Your task to perform on an android device: turn on the 12-hour format for clock Image 0: 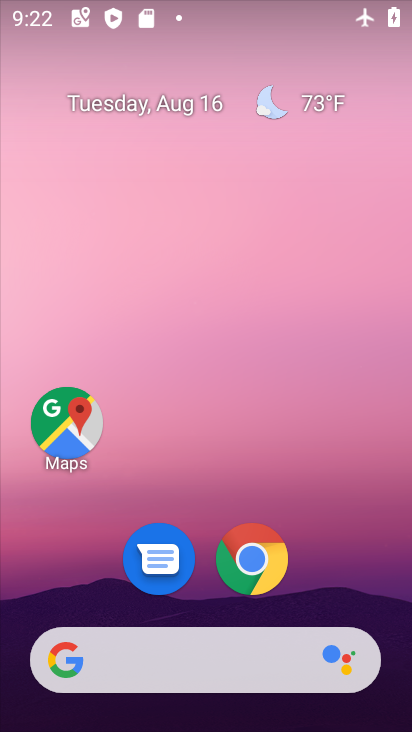
Step 0: drag from (366, 575) to (332, 34)
Your task to perform on an android device: turn on the 12-hour format for clock Image 1: 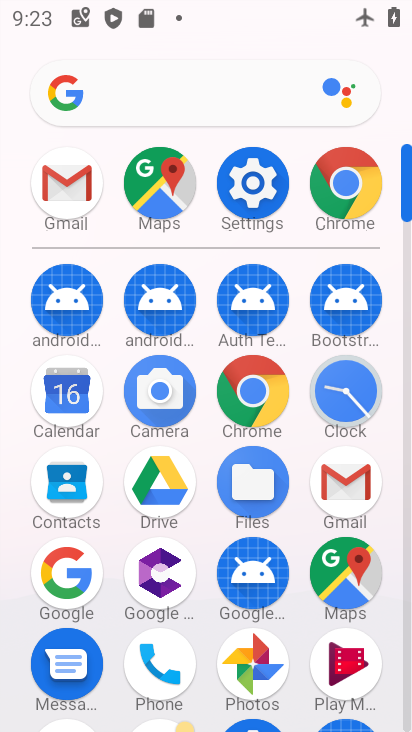
Step 1: click (338, 391)
Your task to perform on an android device: turn on the 12-hour format for clock Image 2: 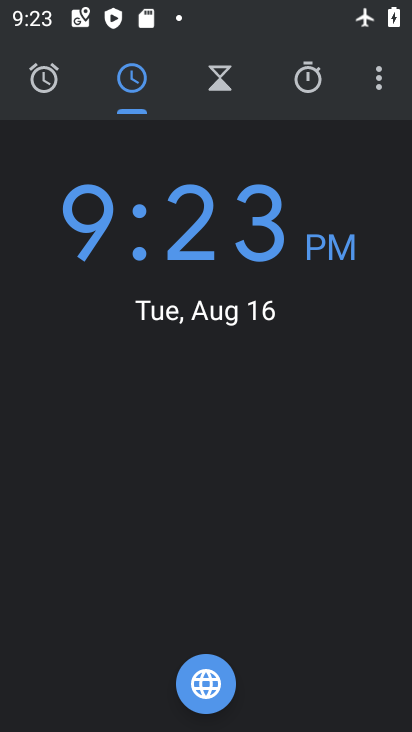
Step 2: click (373, 88)
Your task to perform on an android device: turn on the 12-hour format for clock Image 3: 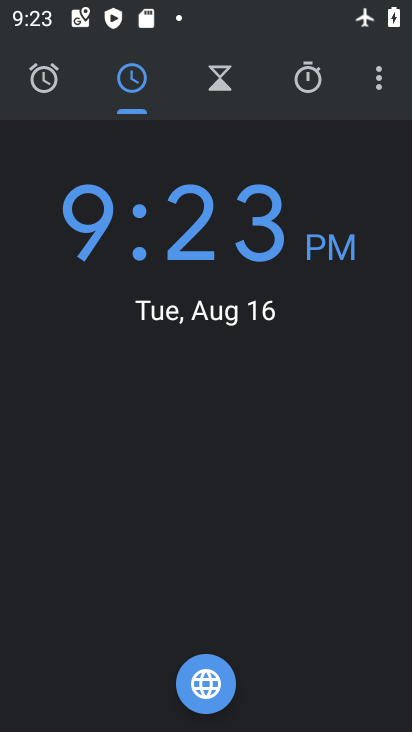
Step 3: click (380, 86)
Your task to perform on an android device: turn on the 12-hour format for clock Image 4: 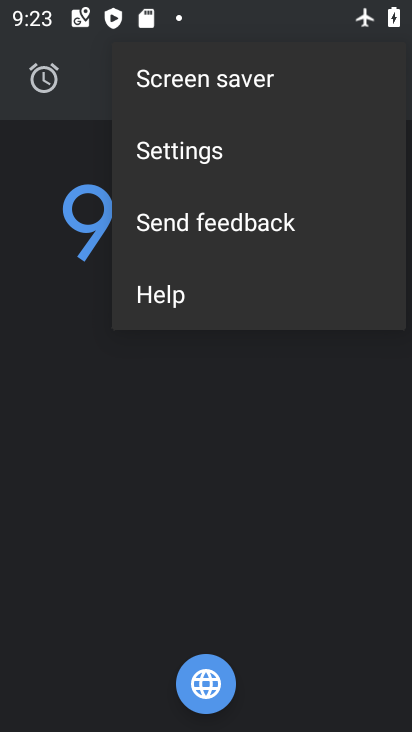
Step 4: click (224, 155)
Your task to perform on an android device: turn on the 12-hour format for clock Image 5: 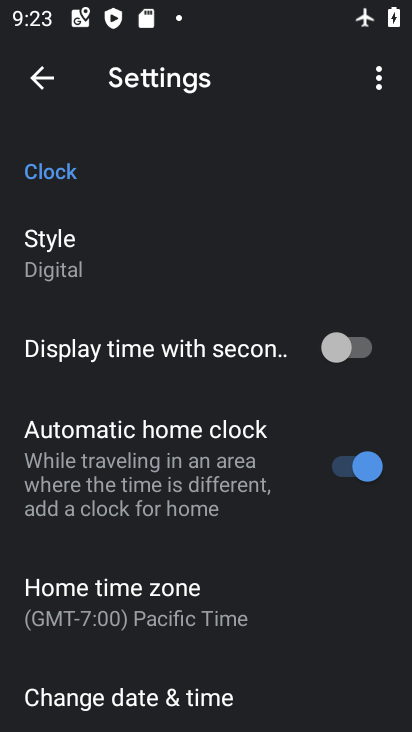
Step 5: drag from (184, 620) to (180, 269)
Your task to perform on an android device: turn on the 12-hour format for clock Image 6: 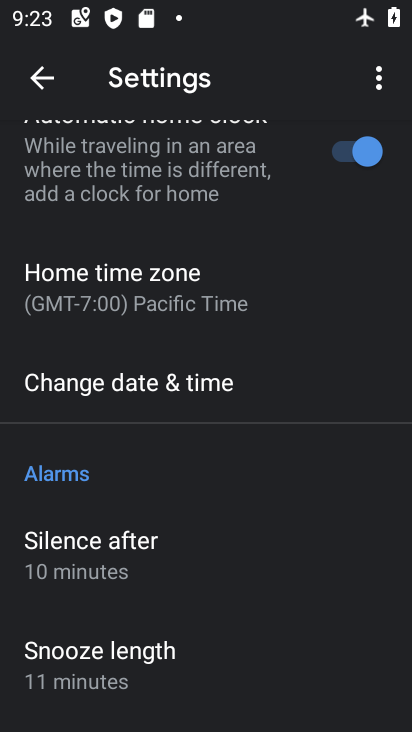
Step 6: click (123, 389)
Your task to perform on an android device: turn on the 12-hour format for clock Image 7: 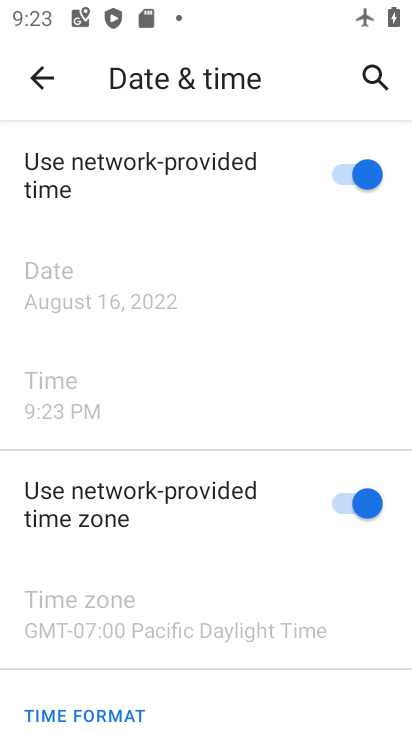
Step 7: task complete